Your task to perform on an android device: Do I have any events this weekend? Image 0: 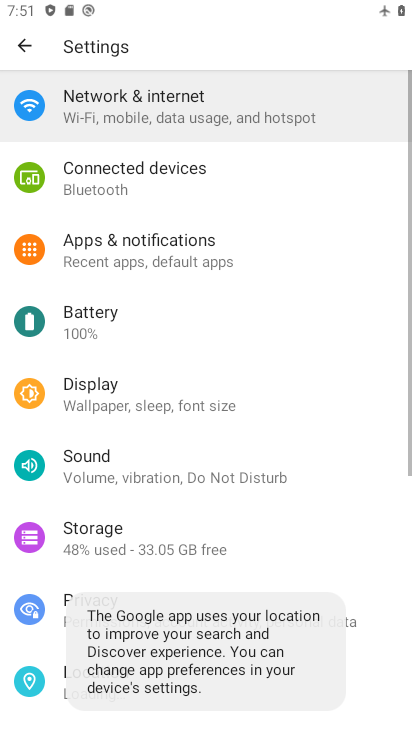
Step 0: press home button
Your task to perform on an android device: Do I have any events this weekend? Image 1: 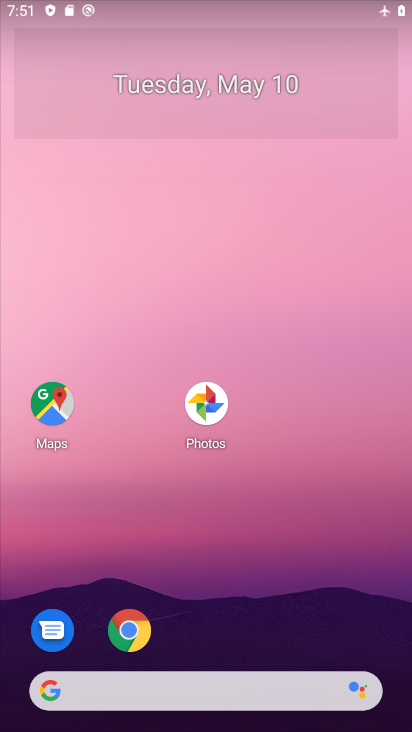
Step 1: drag from (211, 660) to (203, 40)
Your task to perform on an android device: Do I have any events this weekend? Image 2: 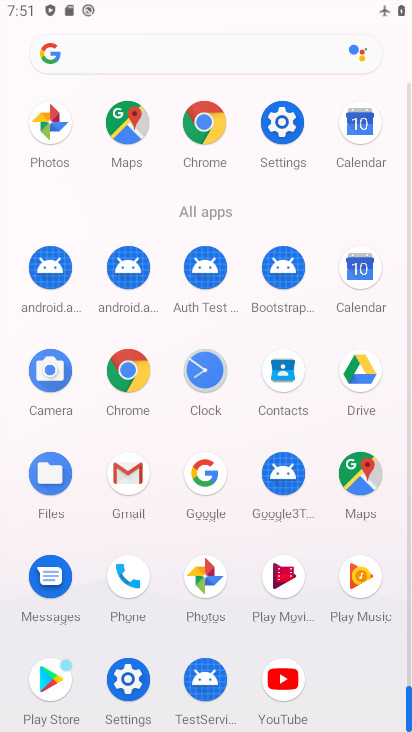
Step 2: click (354, 255)
Your task to perform on an android device: Do I have any events this weekend? Image 3: 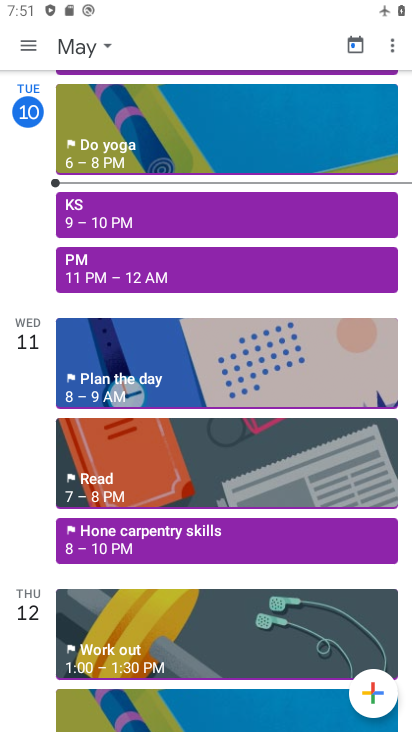
Step 3: click (29, 47)
Your task to perform on an android device: Do I have any events this weekend? Image 4: 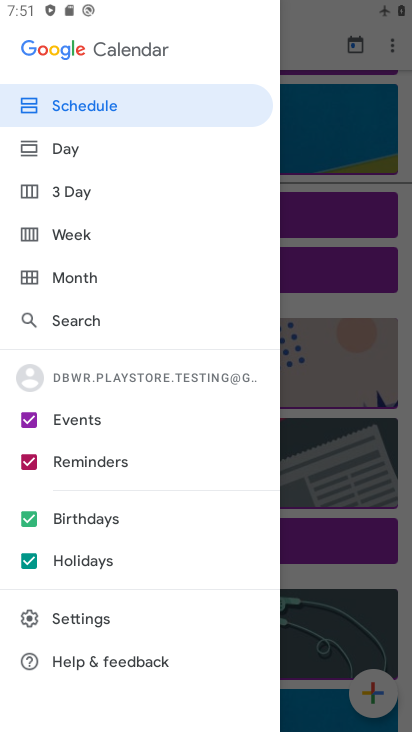
Step 4: click (70, 238)
Your task to perform on an android device: Do I have any events this weekend? Image 5: 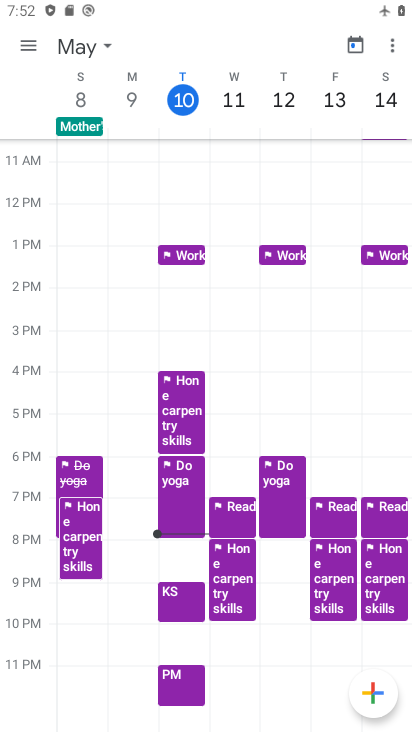
Step 5: drag from (257, 146) to (219, 625)
Your task to perform on an android device: Do I have any events this weekend? Image 6: 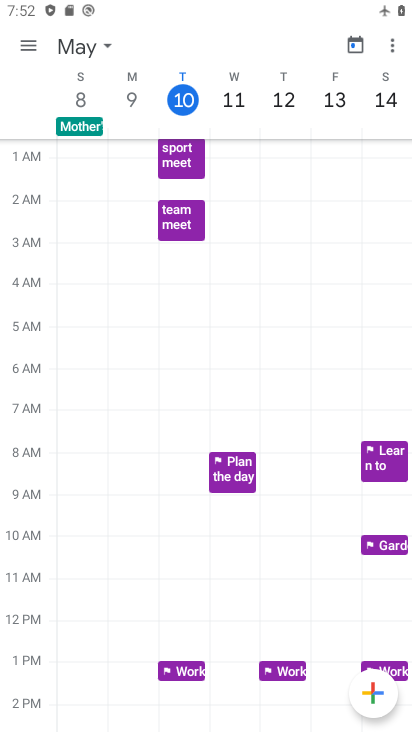
Step 6: click (18, 40)
Your task to perform on an android device: Do I have any events this weekend? Image 7: 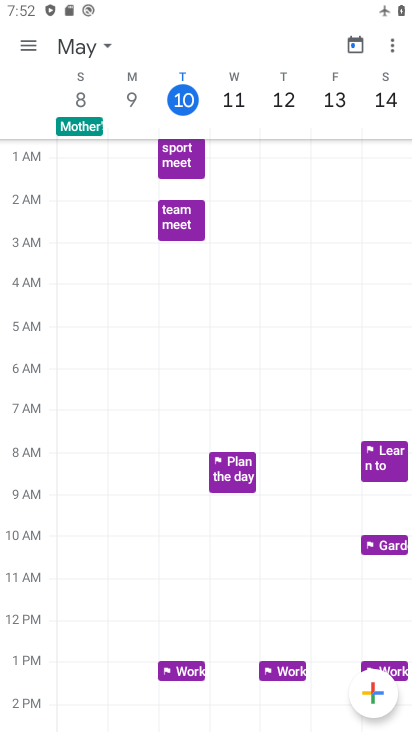
Step 7: click (31, 40)
Your task to perform on an android device: Do I have any events this weekend? Image 8: 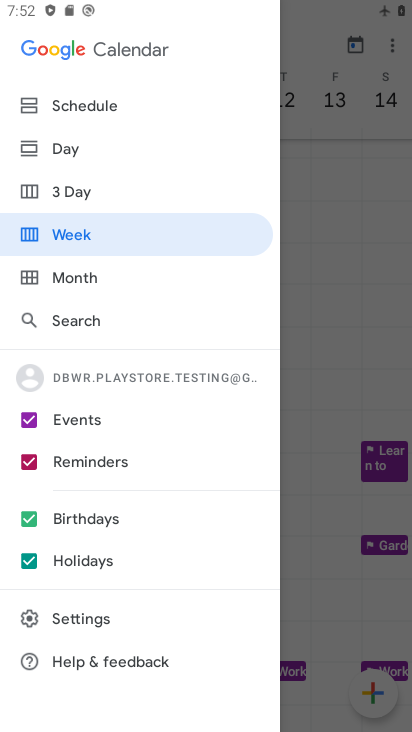
Step 8: drag from (88, 416) to (77, 317)
Your task to perform on an android device: Do I have any events this weekend? Image 9: 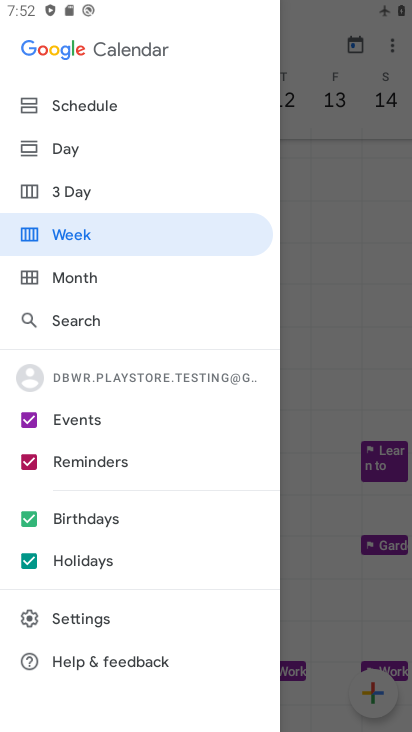
Step 9: click (81, 225)
Your task to perform on an android device: Do I have any events this weekend? Image 10: 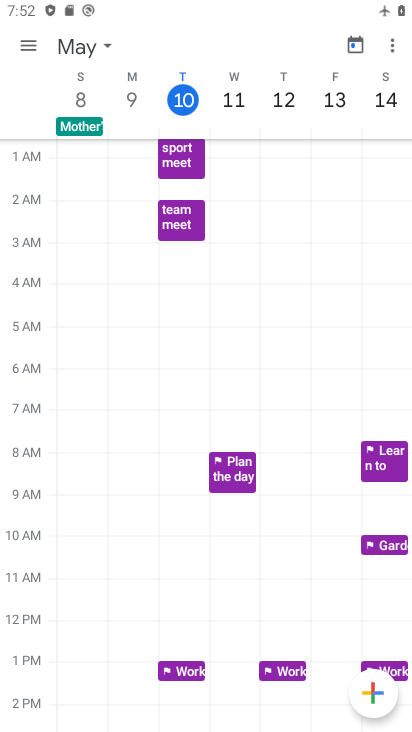
Step 10: task complete